Your task to perform on an android device: open sync settings in chrome Image 0: 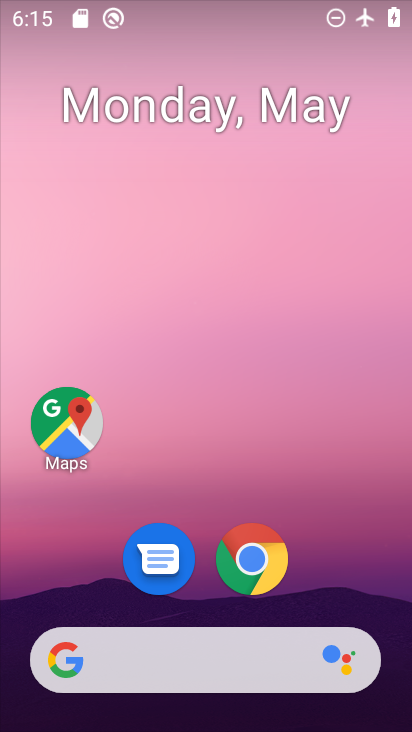
Step 0: click (256, 558)
Your task to perform on an android device: open sync settings in chrome Image 1: 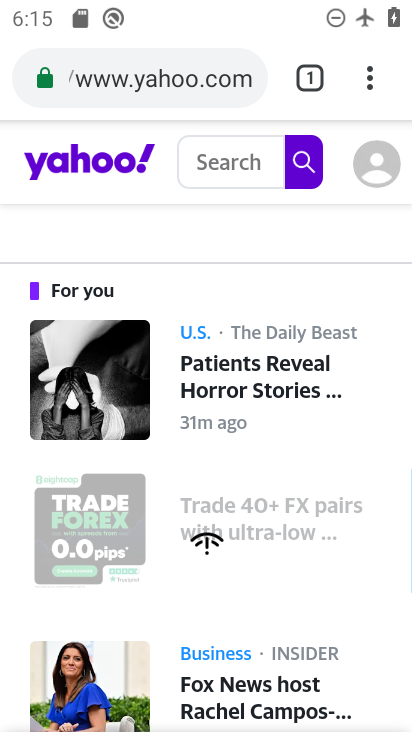
Step 1: click (368, 71)
Your task to perform on an android device: open sync settings in chrome Image 2: 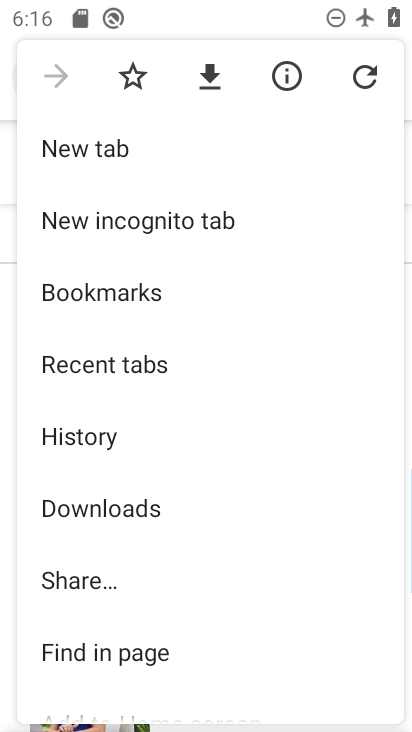
Step 2: drag from (244, 555) to (208, 262)
Your task to perform on an android device: open sync settings in chrome Image 3: 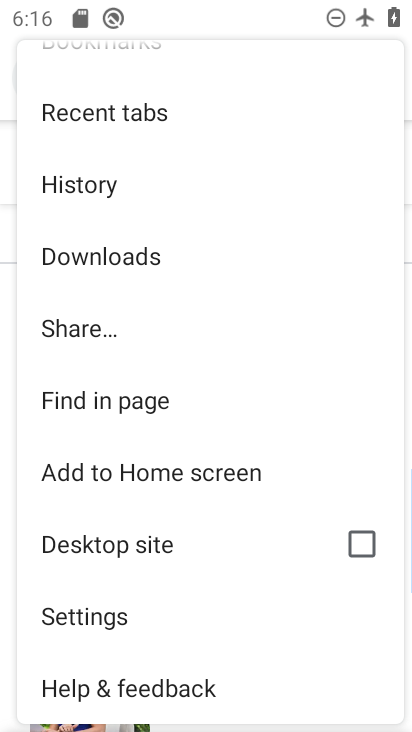
Step 3: click (95, 618)
Your task to perform on an android device: open sync settings in chrome Image 4: 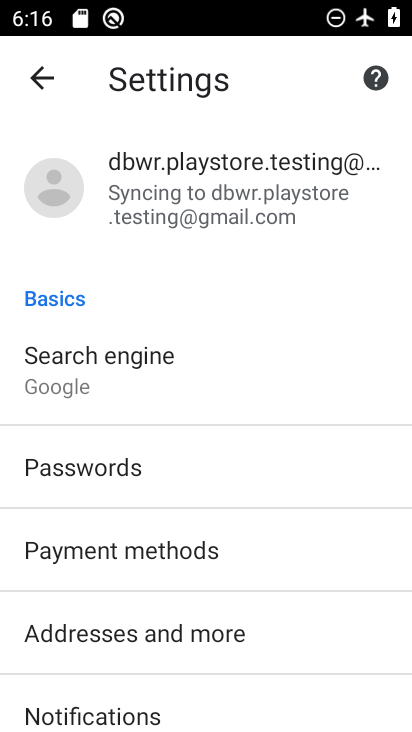
Step 4: click (173, 172)
Your task to perform on an android device: open sync settings in chrome Image 5: 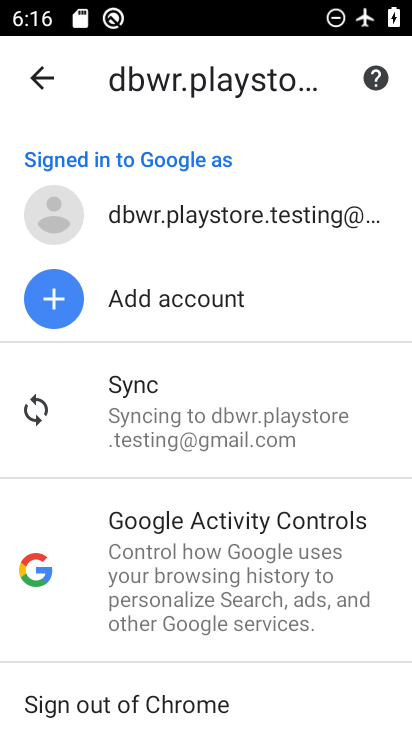
Step 5: click (154, 395)
Your task to perform on an android device: open sync settings in chrome Image 6: 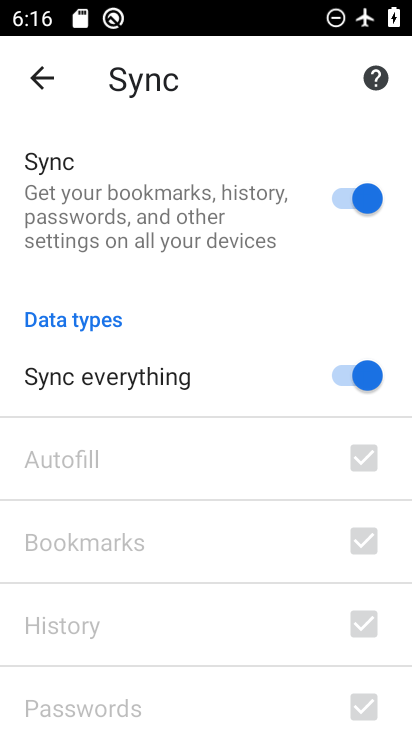
Step 6: task complete